Your task to perform on an android device: star an email in the gmail app Image 0: 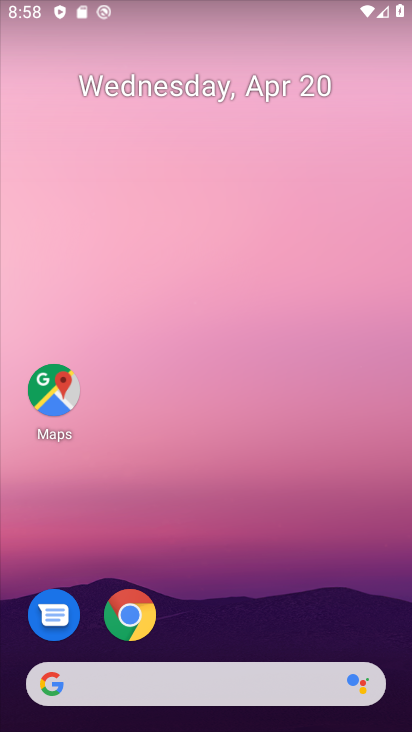
Step 0: drag from (210, 631) to (285, 56)
Your task to perform on an android device: star an email in the gmail app Image 1: 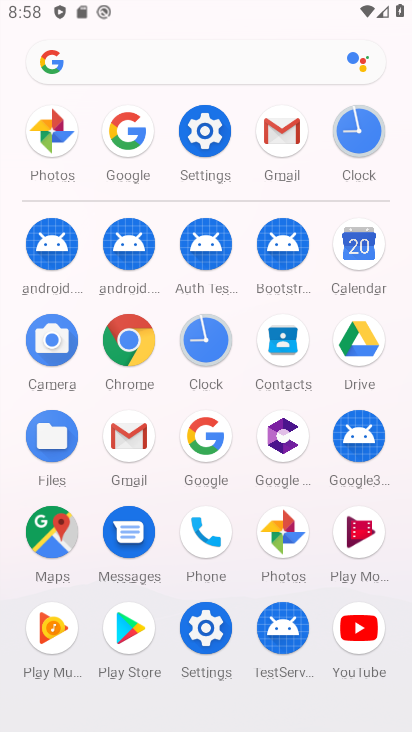
Step 1: click (284, 130)
Your task to perform on an android device: star an email in the gmail app Image 2: 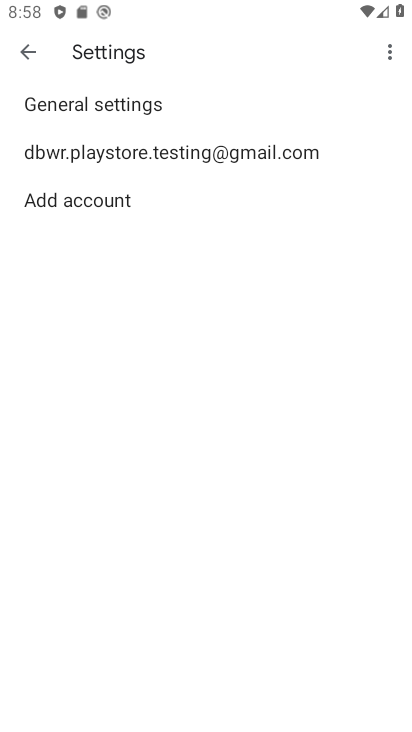
Step 2: press back button
Your task to perform on an android device: star an email in the gmail app Image 3: 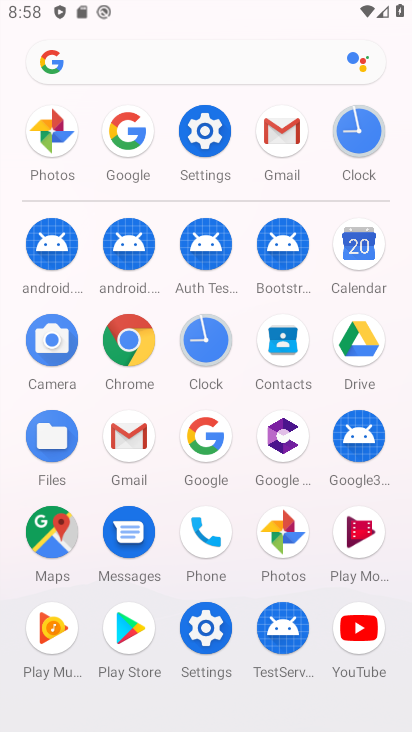
Step 3: click (282, 131)
Your task to perform on an android device: star an email in the gmail app Image 4: 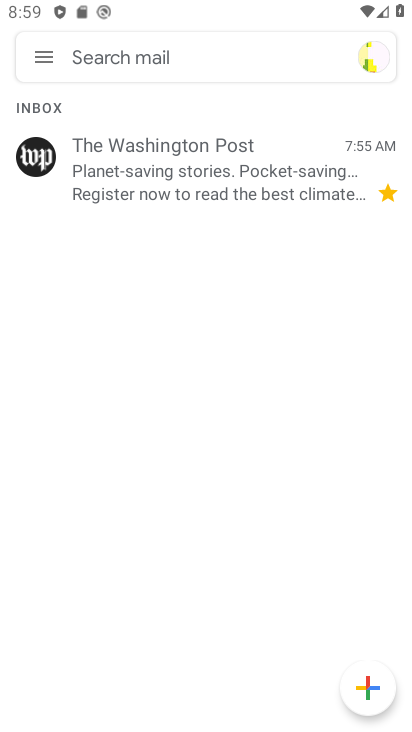
Step 4: click (42, 61)
Your task to perform on an android device: star an email in the gmail app Image 5: 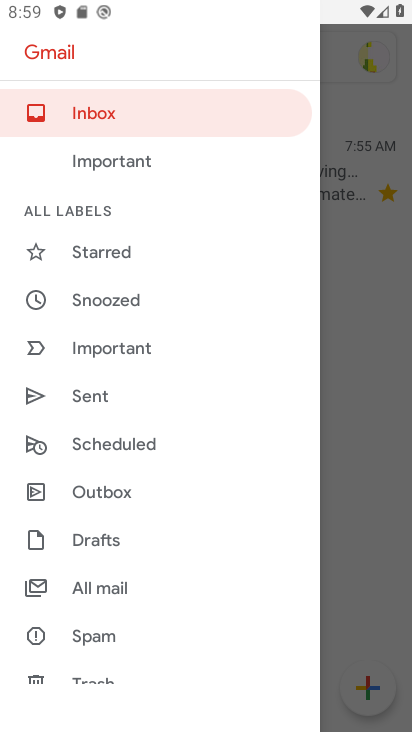
Step 5: click (111, 586)
Your task to perform on an android device: star an email in the gmail app Image 6: 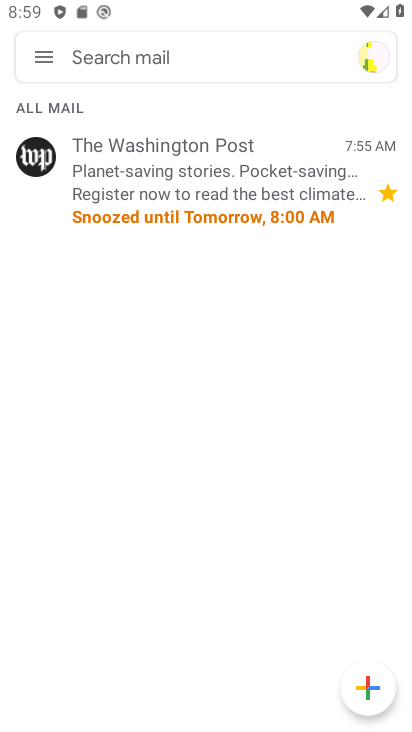
Step 6: click (276, 183)
Your task to perform on an android device: star an email in the gmail app Image 7: 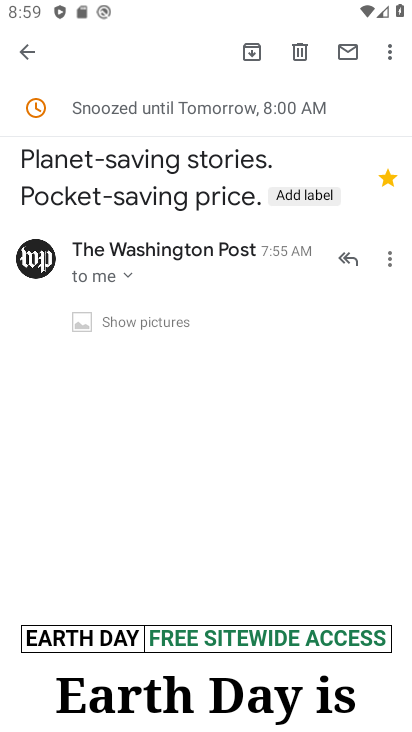
Step 7: task complete